Your task to perform on an android device: check the backup settings in the google photos Image 0: 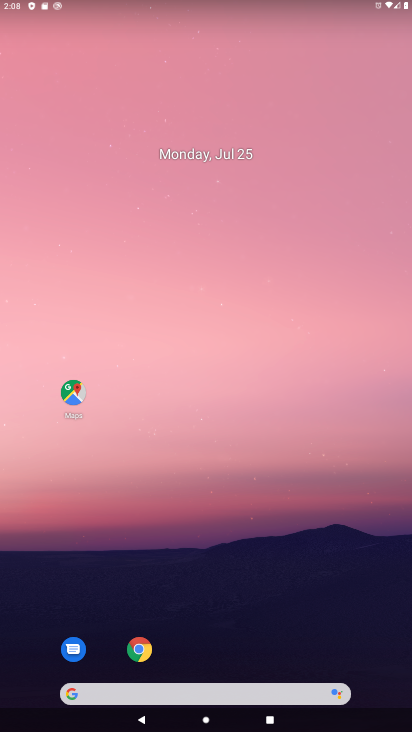
Step 0: drag from (382, 680) to (327, 41)
Your task to perform on an android device: check the backup settings in the google photos Image 1: 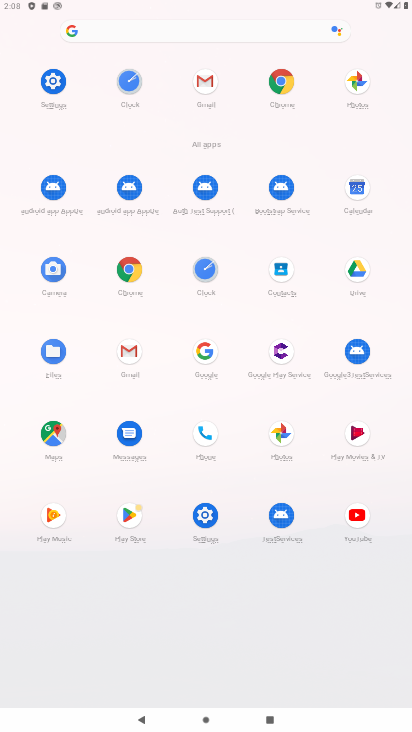
Step 1: click (281, 430)
Your task to perform on an android device: check the backup settings in the google photos Image 2: 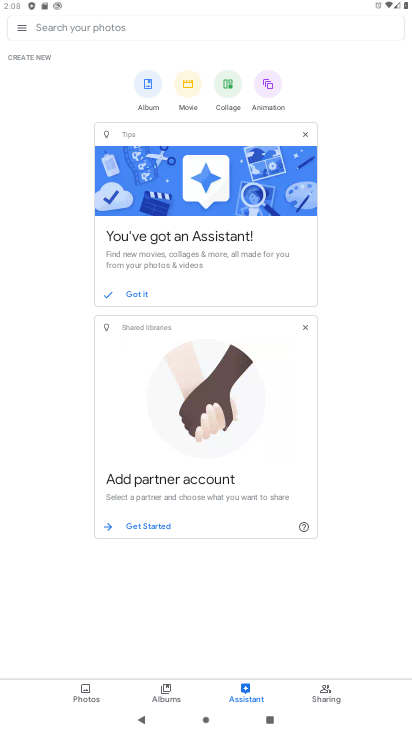
Step 2: click (83, 688)
Your task to perform on an android device: check the backup settings in the google photos Image 3: 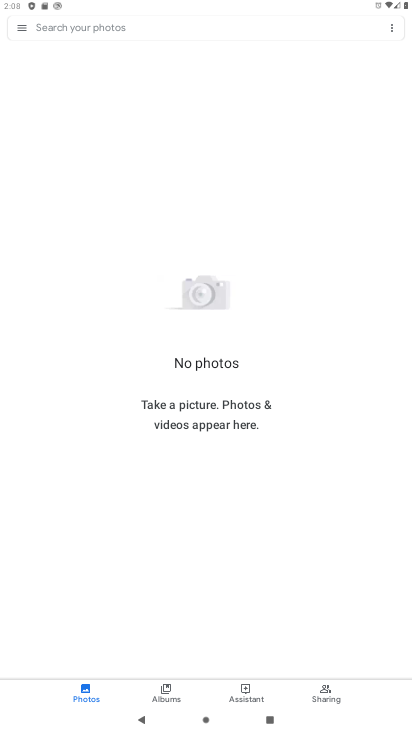
Step 3: click (20, 29)
Your task to perform on an android device: check the backup settings in the google photos Image 4: 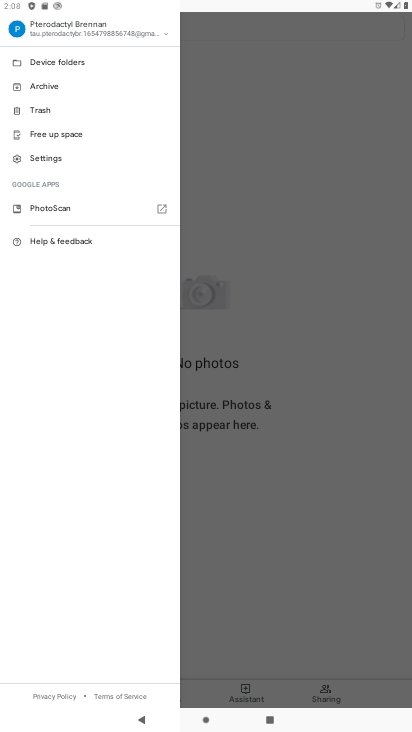
Step 4: click (44, 157)
Your task to perform on an android device: check the backup settings in the google photos Image 5: 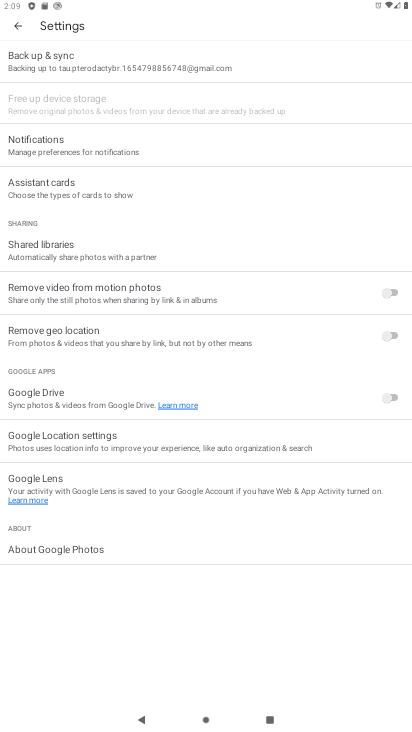
Step 5: click (72, 57)
Your task to perform on an android device: check the backup settings in the google photos Image 6: 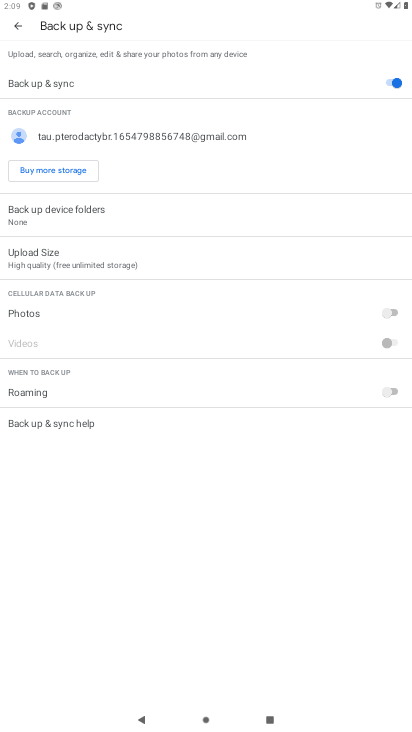
Step 6: task complete